Your task to perform on an android device: install app "DoorDash - Dasher" Image 0: 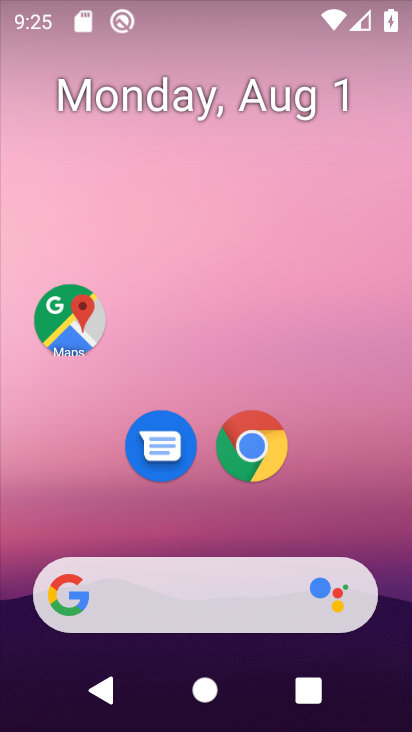
Step 0: drag from (203, 329) to (203, 76)
Your task to perform on an android device: install app "DoorDash - Dasher" Image 1: 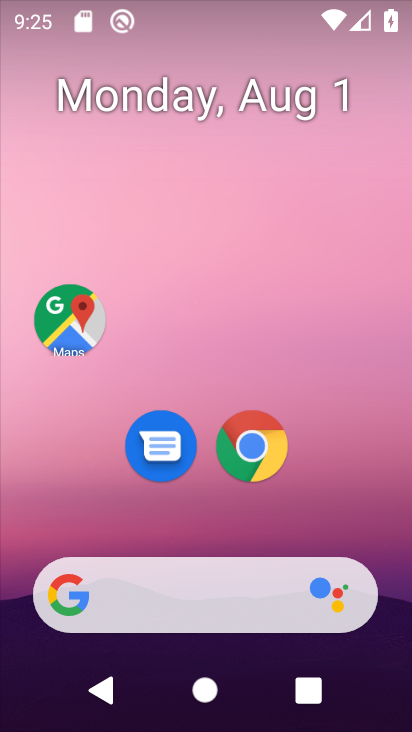
Step 1: drag from (203, 357) to (206, 147)
Your task to perform on an android device: install app "DoorDash - Dasher" Image 2: 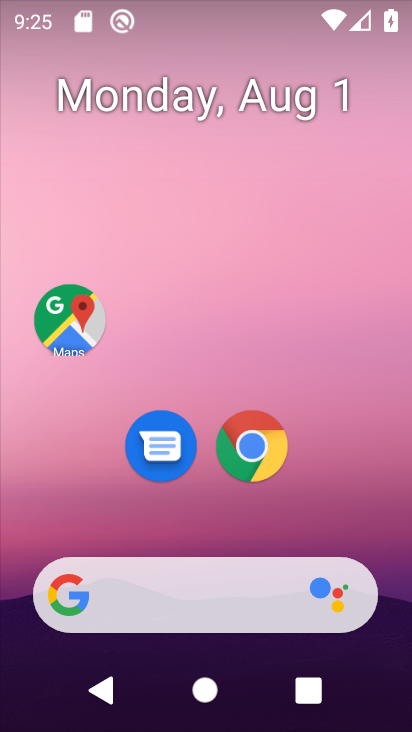
Step 2: drag from (208, 519) to (207, 12)
Your task to perform on an android device: install app "DoorDash - Dasher" Image 3: 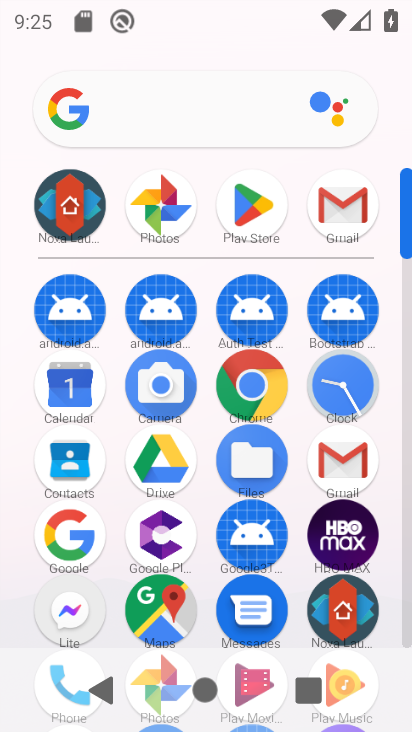
Step 3: click (242, 207)
Your task to perform on an android device: install app "DoorDash - Dasher" Image 4: 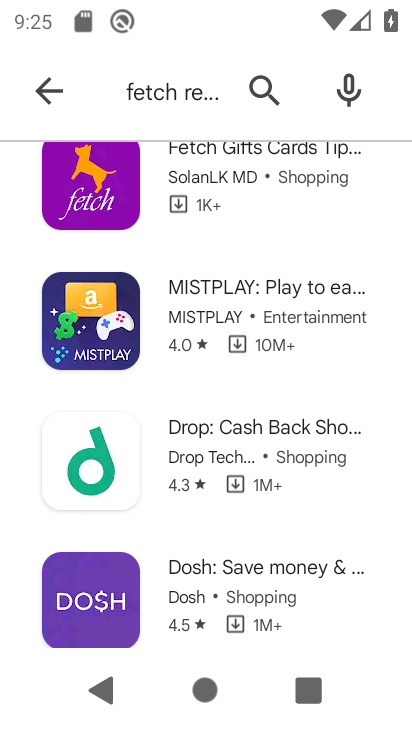
Step 4: click (247, 78)
Your task to perform on an android device: install app "DoorDash - Dasher" Image 5: 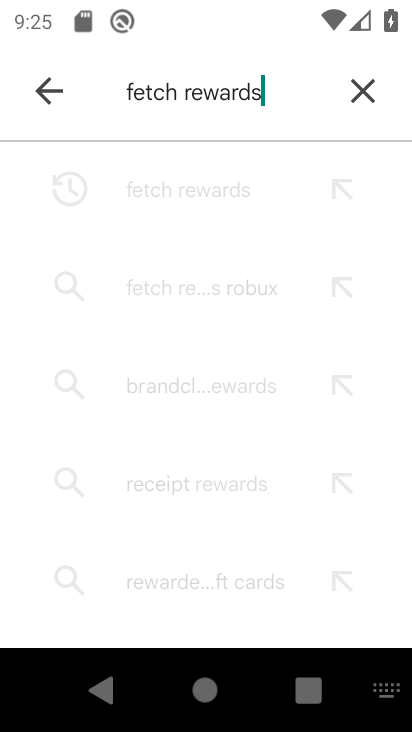
Step 5: click (350, 89)
Your task to perform on an android device: install app "DoorDash - Dasher" Image 6: 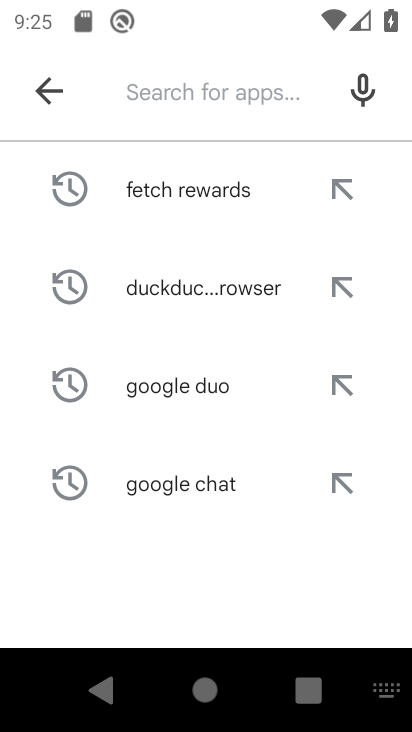
Step 6: type "DoorDash - Dasher"
Your task to perform on an android device: install app "DoorDash - Dasher" Image 7: 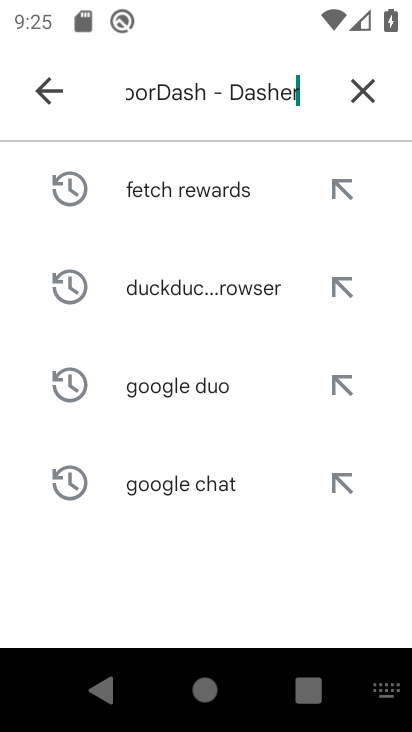
Step 7: type ""
Your task to perform on an android device: install app "DoorDash - Dasher" Image 8: 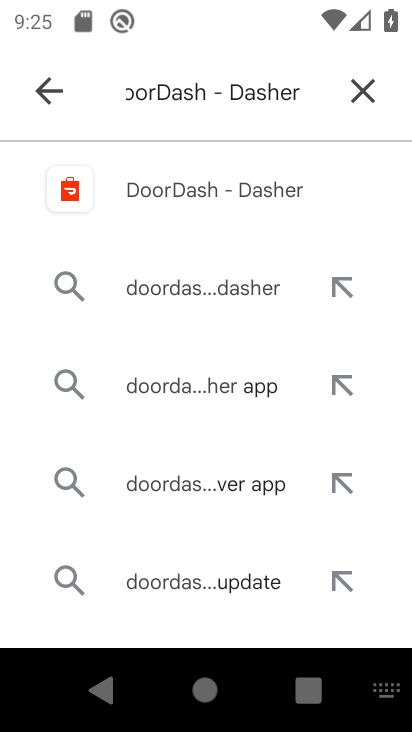
Step 8: click (203, 196)
Your task to perform on an android device: install app "DoorDash - Dasher" Image 9: 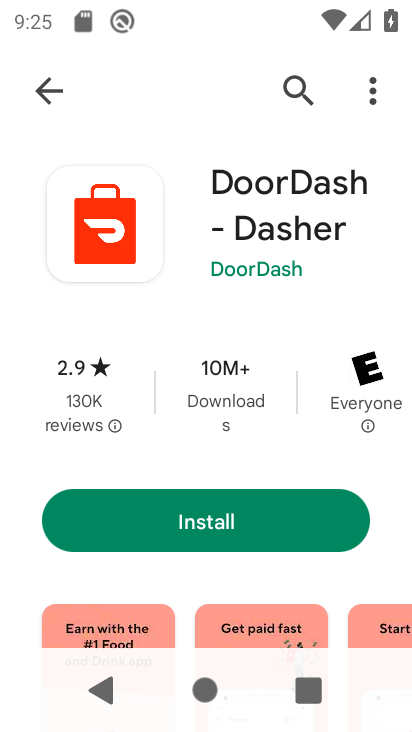
Step 9: click (215, 526)
Your task to perform on an android device: install app "DoorDash - Dasher" Image 10: 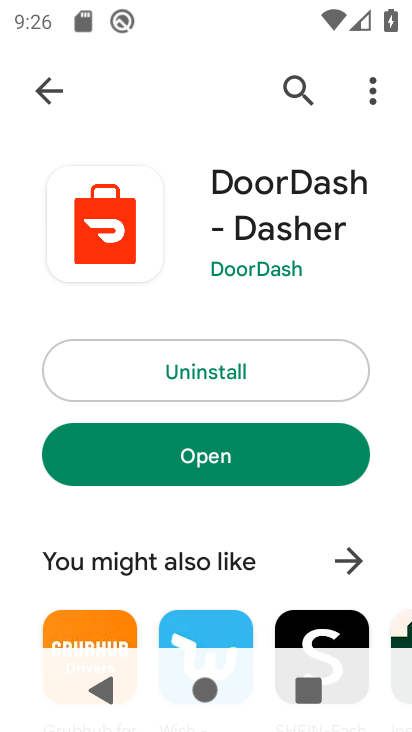
Step 10: task complete